Your task to perform on an android device: make emails show in primary in the gmail app Image 0: 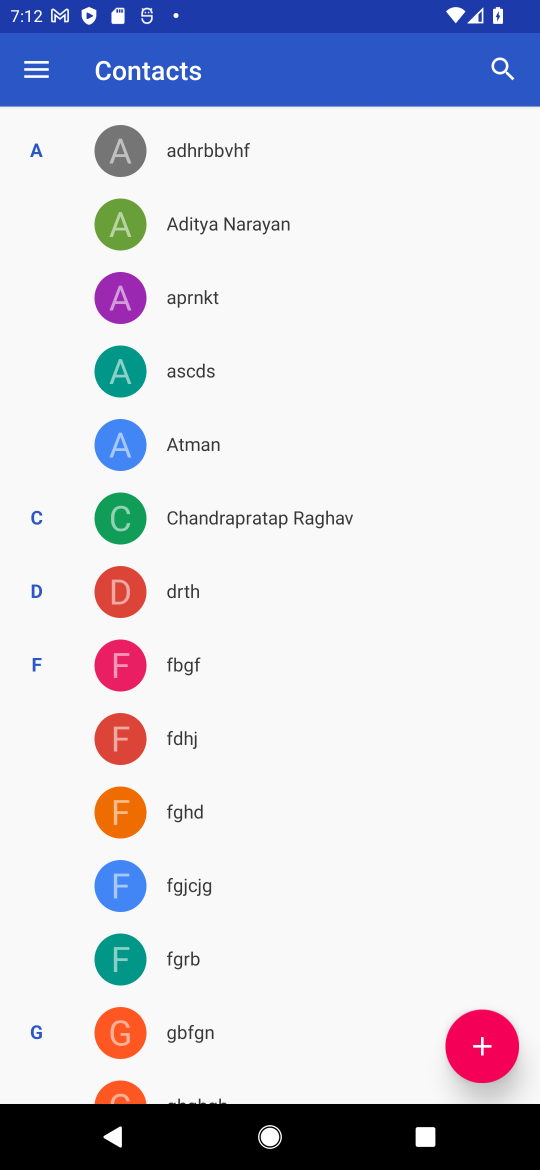
Step 0: press home button
Your task to perform on an android device: make emails show in primary in the gmail app Image 1: 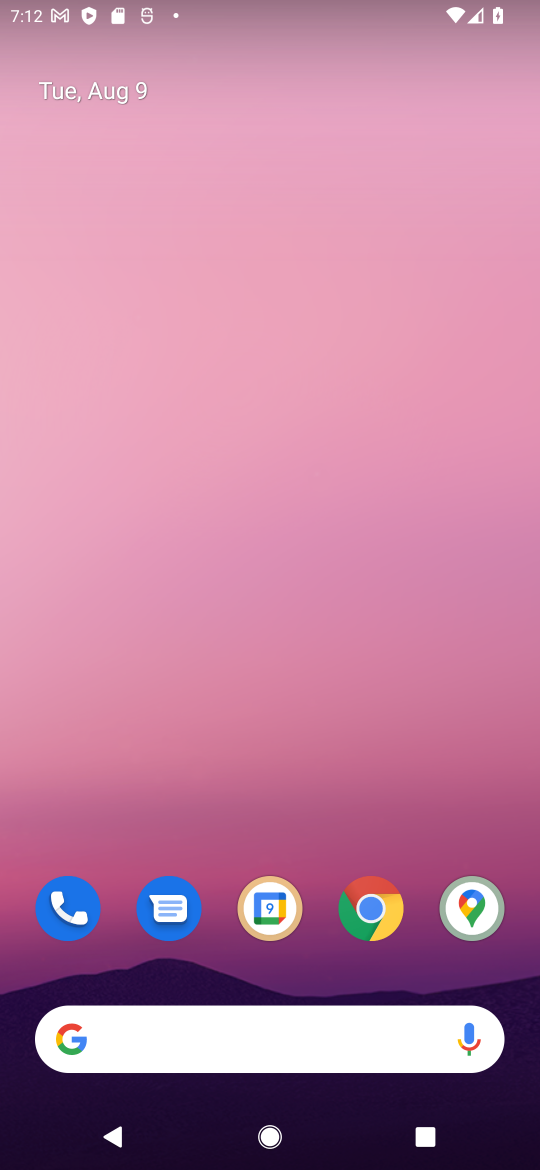
Step 1: drag from (329, 161) to (334, 38)
Your task to perform on an android device: make emails show in primary in the gmail app Image 2: 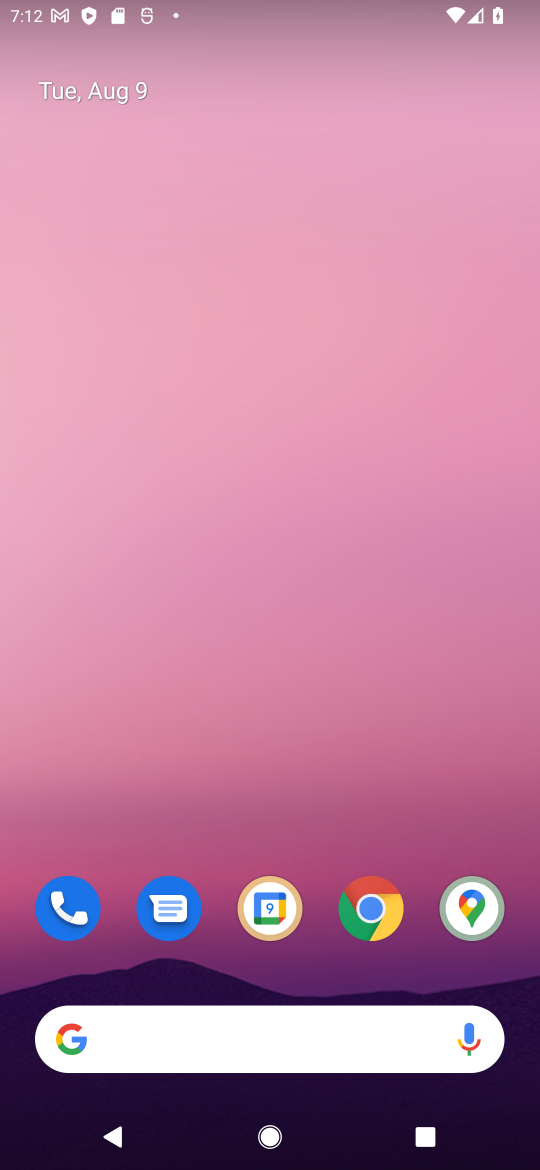
Step 2: drag from (317, 905) to (335, 108)
Your task to perform on an android device: make emails show in primary in the gmail app Image 3: 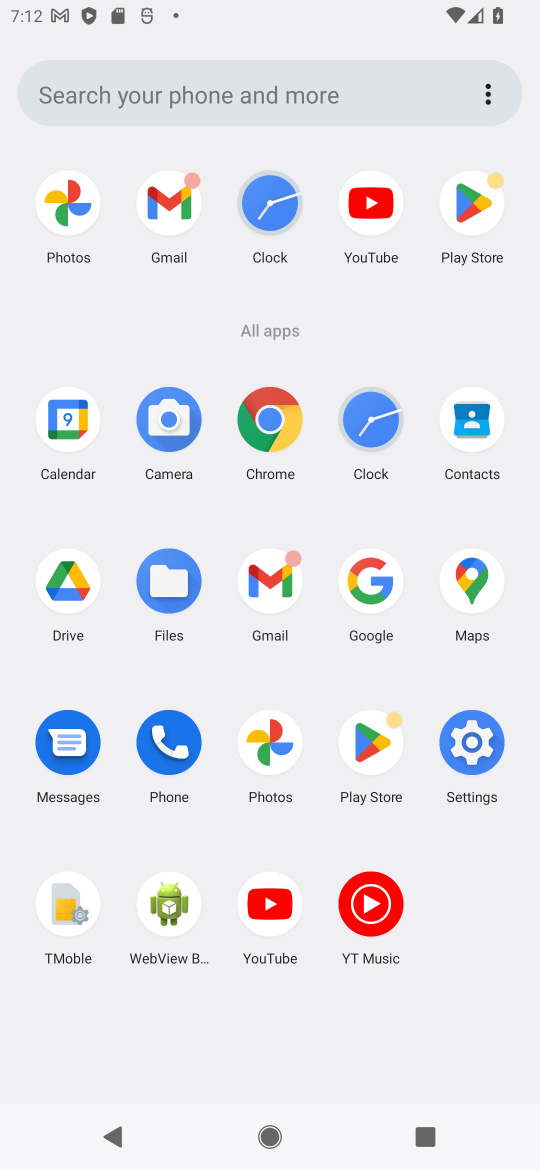
Step 3: click (270, 565)
Your task to perform on an android device: make emails show in primary in the gmail app Image 4: 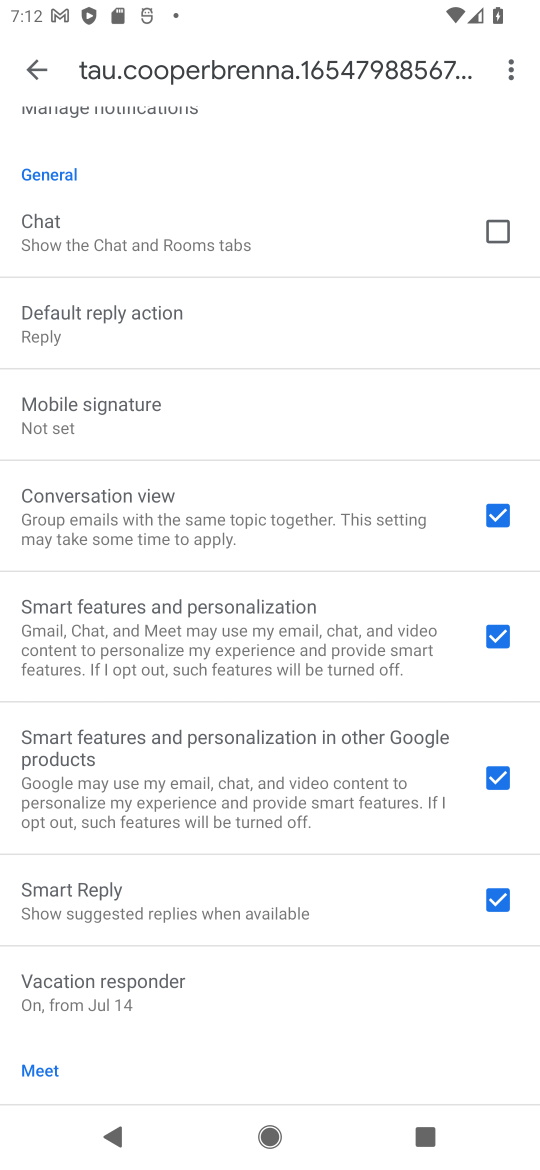
Step 4: drag from (199, 227) to (188, 800)
Your task to perform on an android device: make emails show in primary in the gmail app Image 5: 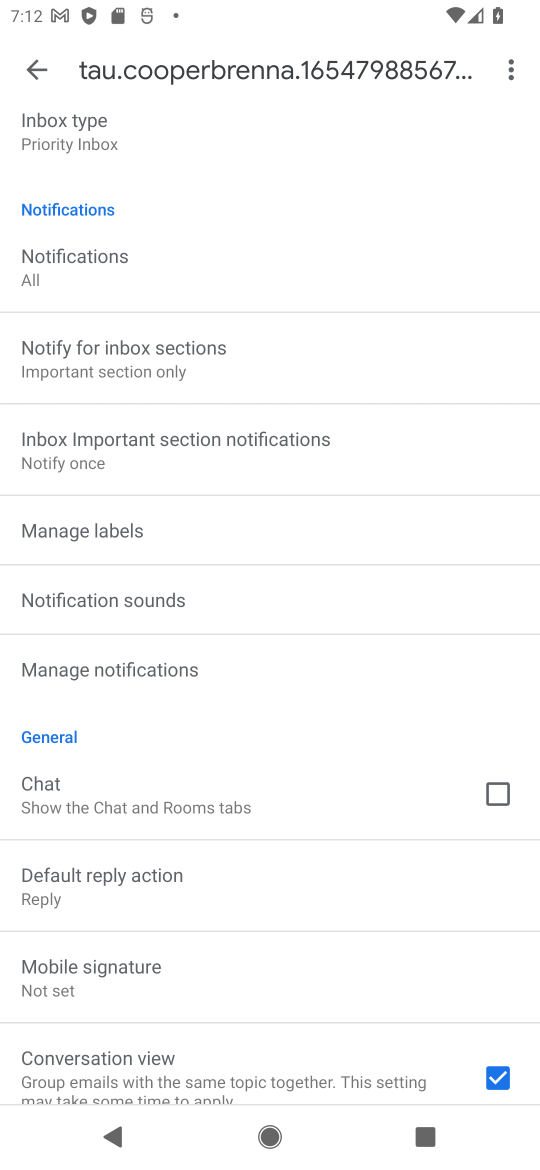
Step 5: drag from (158, 226) to (141, 948)
Your task to perform on an android device: make emails show in primary in the gmail app Image 6: 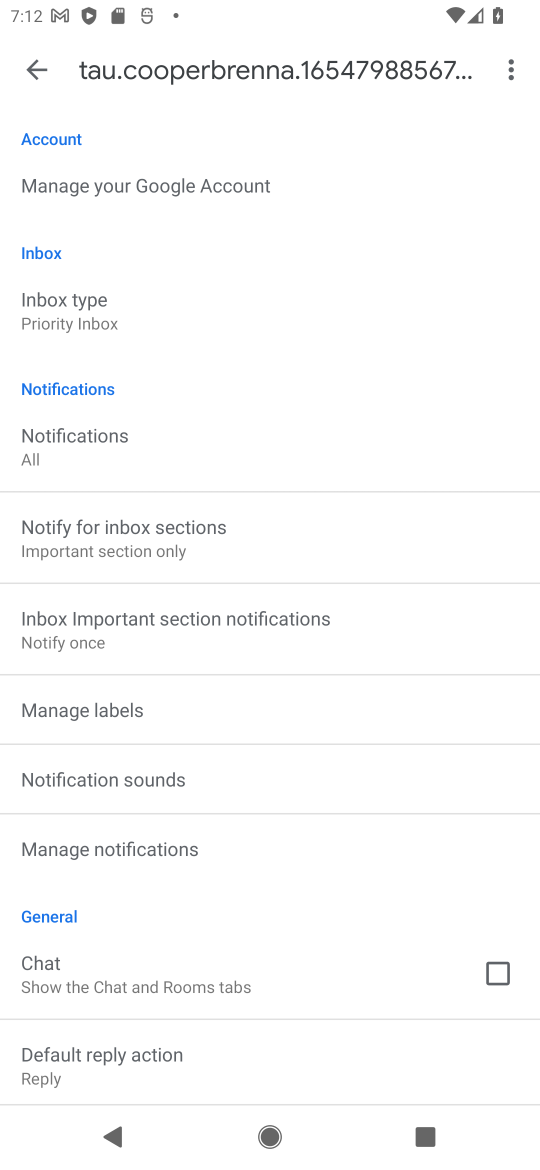
Step 6: click (96, 321)
Your task to perform on an android device: make emails show in primary in the gmail app Image 7: 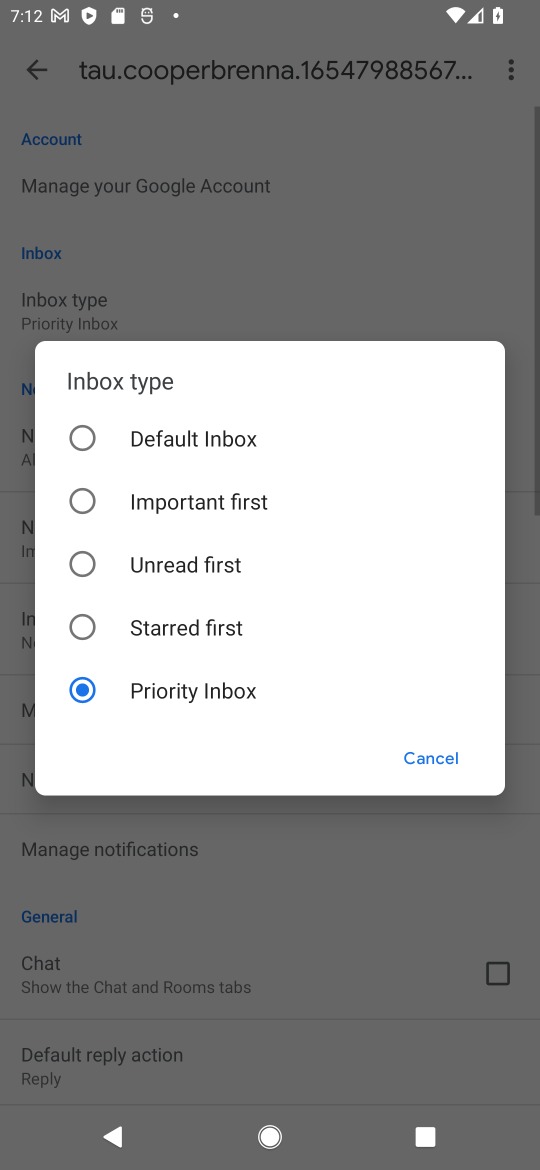
Step 7: click (76, 429)
Your task to perform on an android device: make emails show in primary in the gmail app Image 8: 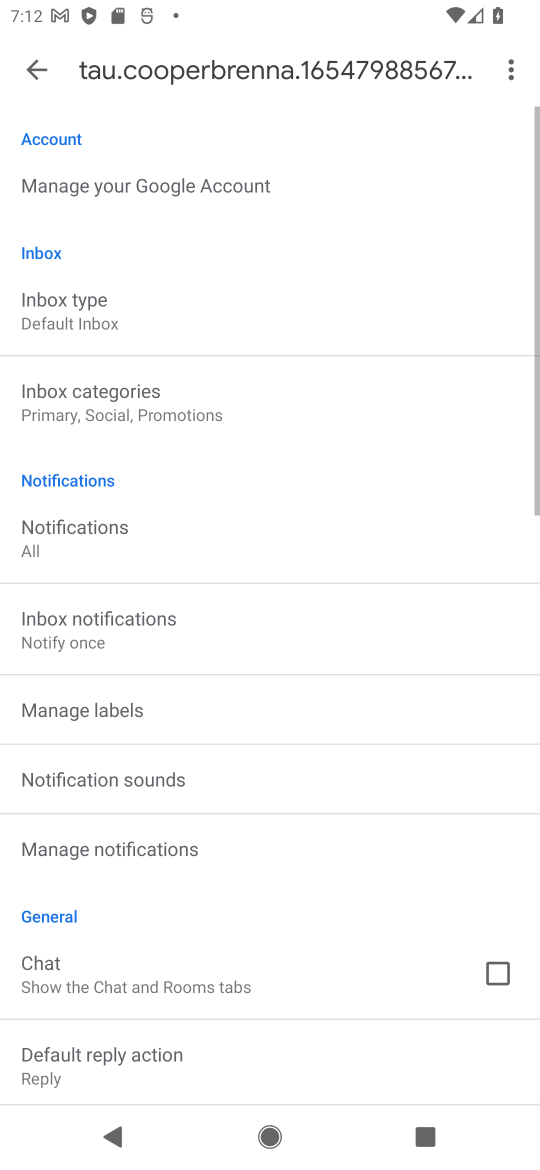
Step 8: click (54, 426)
Your task to perform on an android device: make emails show in primary in the gmail app Image 9: 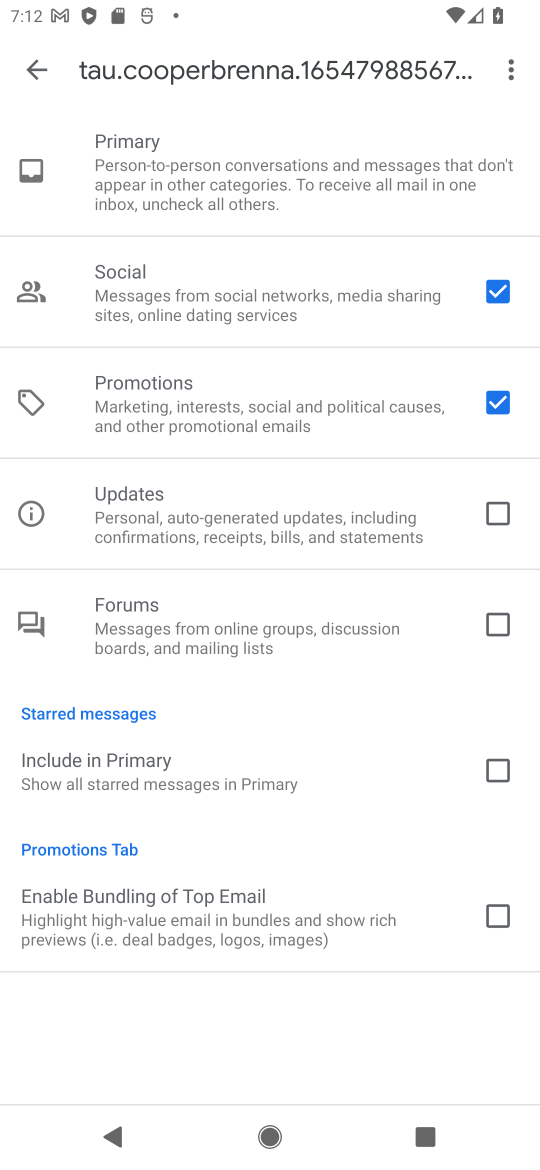
Step 9: click (490, 393)
Your task to perform on an android device: make emails show in primary in the gmail app Image 10: 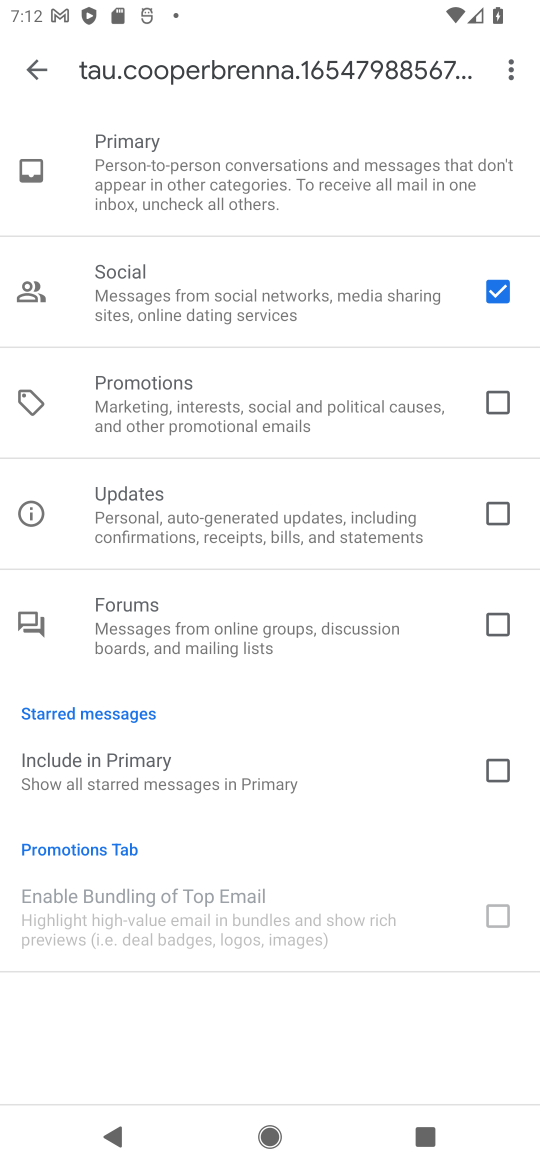
Step 10: click (494, 279)
Your task to perform on an android device: make emails show in primary in the gmail app Image 11: 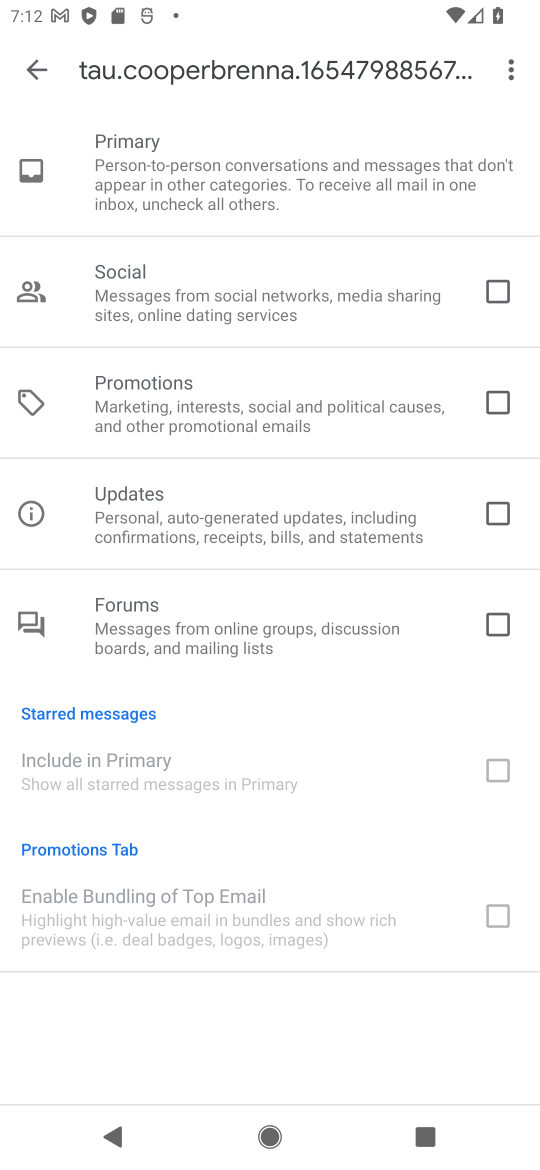
Step 11: drag from (354, 925) to (340, 499)
Your task to perform on an android device: make emails show in primary in the gmail app Image 12: 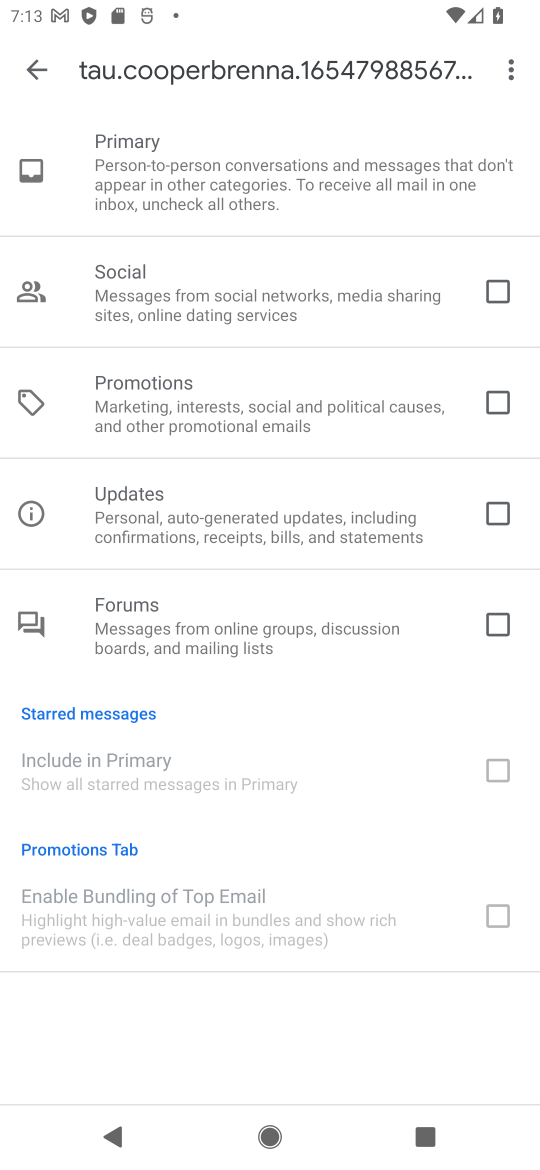
Step 12: click (37, 64)
Your task to perform on an android device: make emails show in primary in the gmail app Image 13: 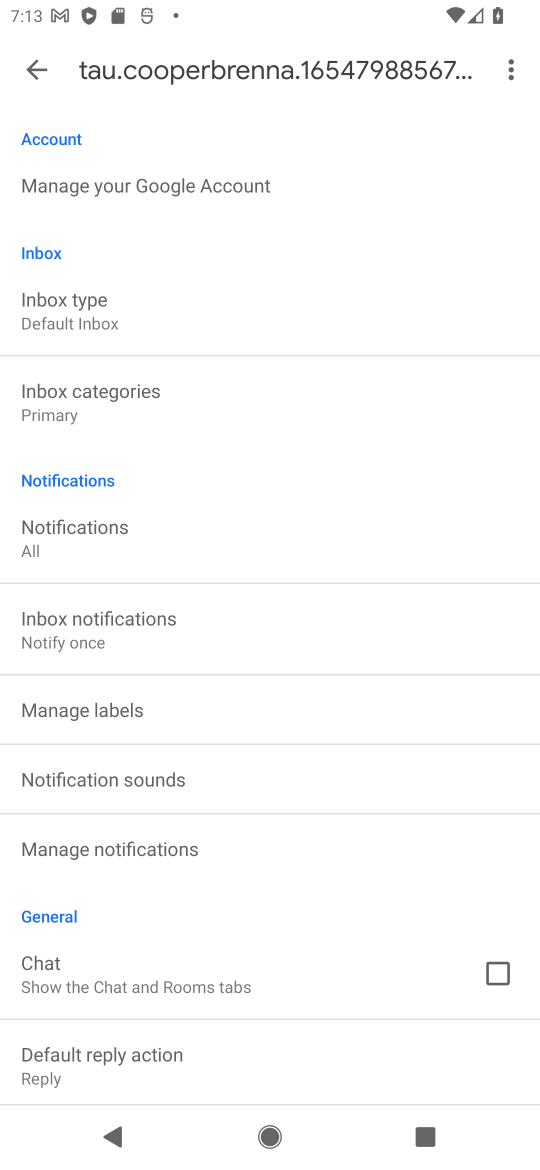
Step 13: task complete